Your task to perform on an android device: open chrome privacy settings Image 0: 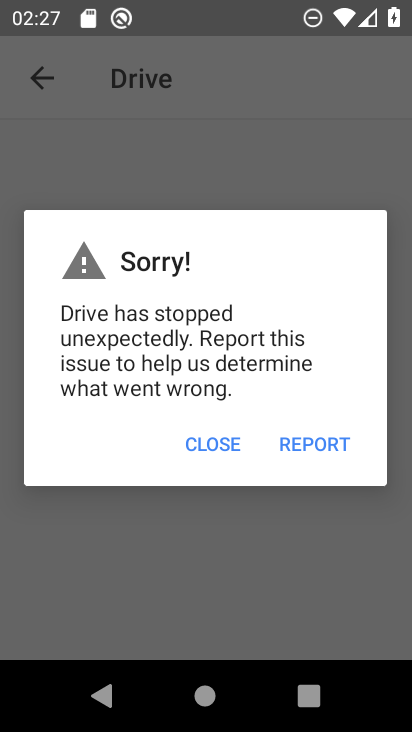
Step 0: press home button
Your task to perform on an android device: open chrome privacy settings Image 1: 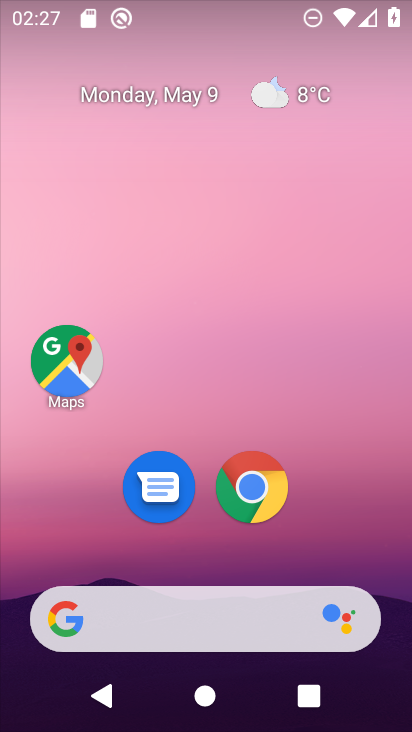
Step 1: click (262, 481)
Your task to perform on an android device: open chrome privacy settings Image 2: 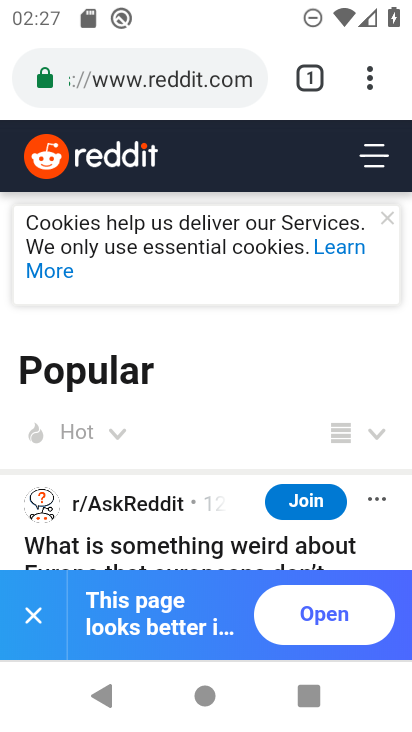
Step 2: click (381, 78)
Your task to perform on an android device: open chrome privacy settings Image 3: 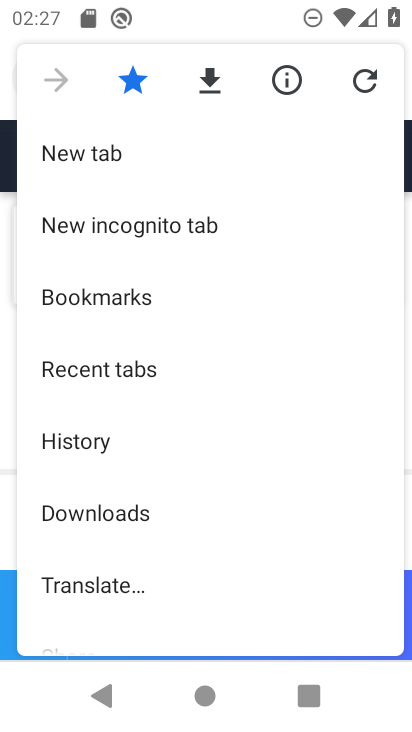
Step 3: drag from (281, 526) to (233, 257)
Your task to perform on an android device: open chrome privacy settings Image 4: 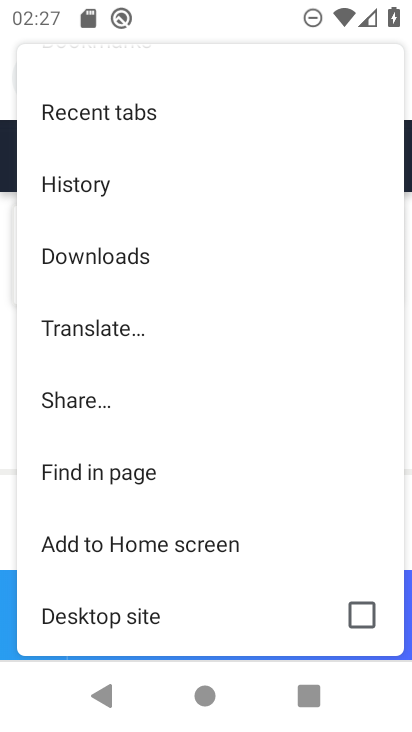
Step 4: drag from (173, 454) to (160, 317)
Your task to perform on an android device: open chrome privacy settings Image 5: 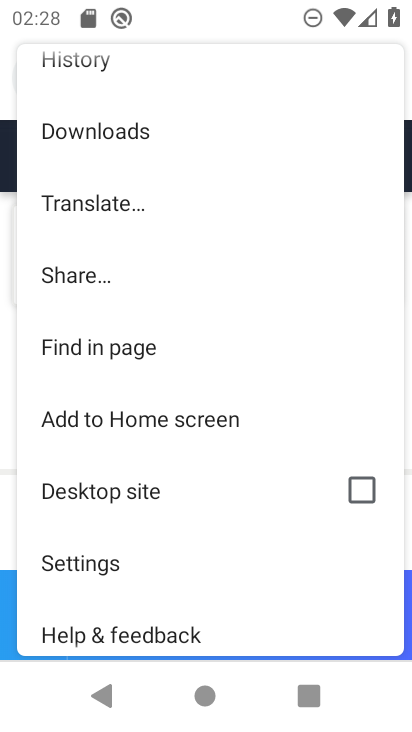
Step 5: click (122, 566)
Your task to perform on an android device: open chrome privacy settings Image 6: 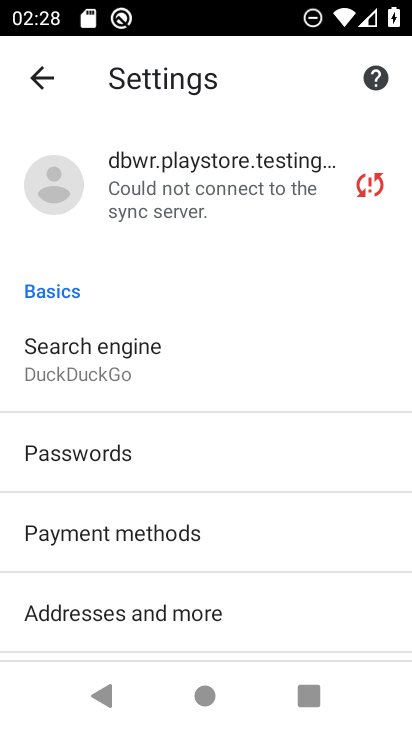
Step 6: drag from (166, 606) to (143, 284)
Your task to perform on an android device: open chrome privacy settings Image 7: 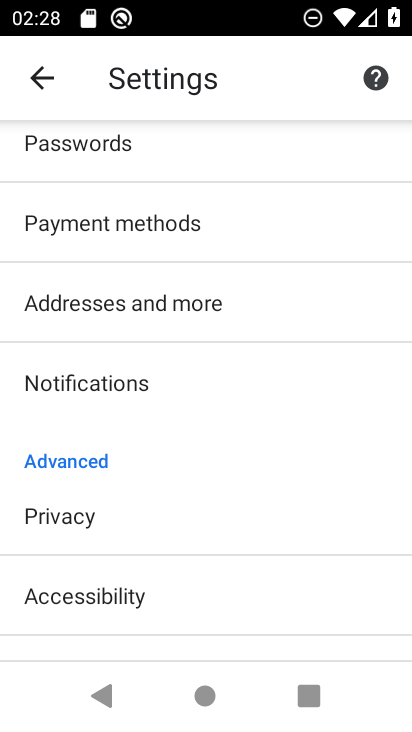
Step 7: click (145, 518)
Your task to perform on an android device: open chrome privacy settings Image 8: 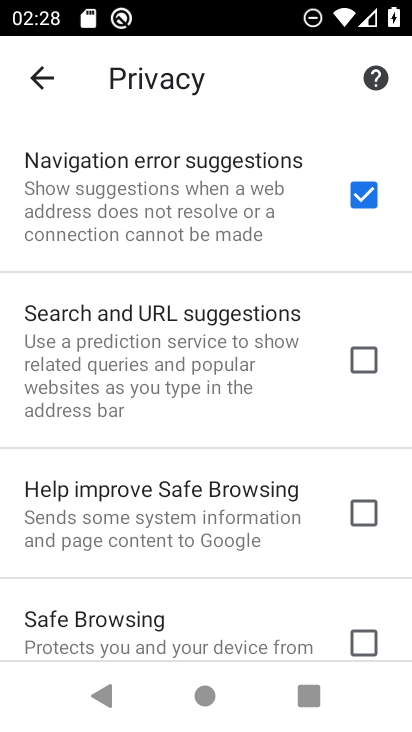
Step 8: task complete